Your task to perform on an android device: Go to Reddit.com Image 0: 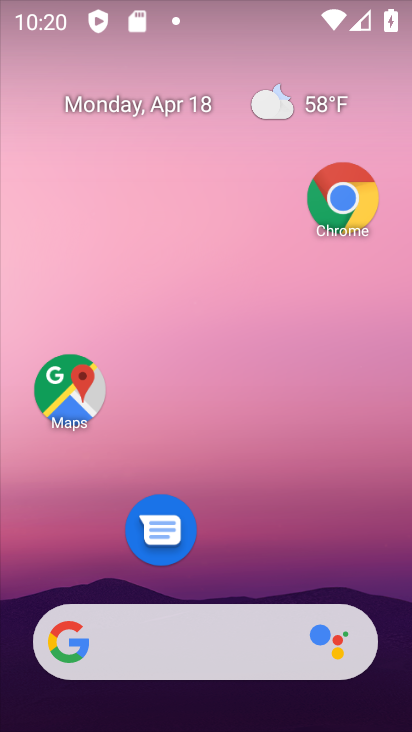
Step 0: drag from (260, 501) to (311, 207)
Your task to perform on an android device: Go to Reddit.com Image 1: 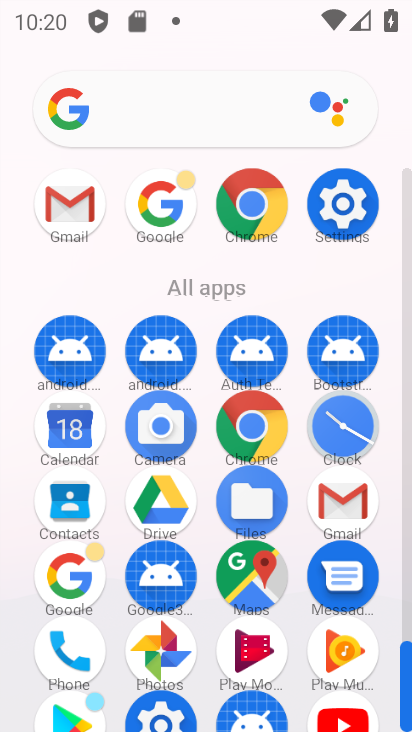
Step 1: click (245, 433)
Your task to perform on an android device: Go to Reddit.com Image 2: 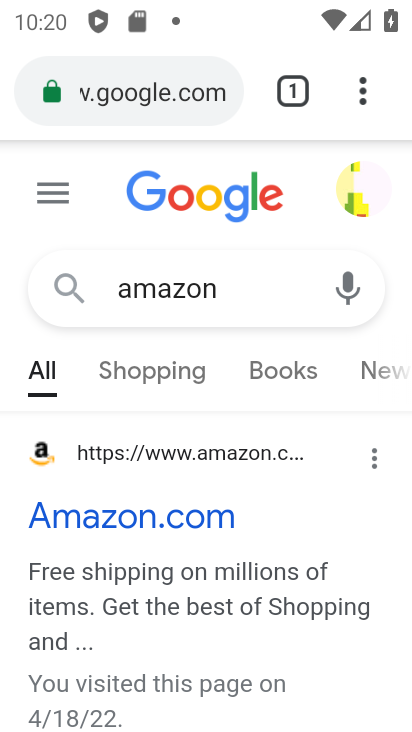
Step 2: click (143, 98)
Your task to perform on an android device: Go to Reddit.com Image 3: 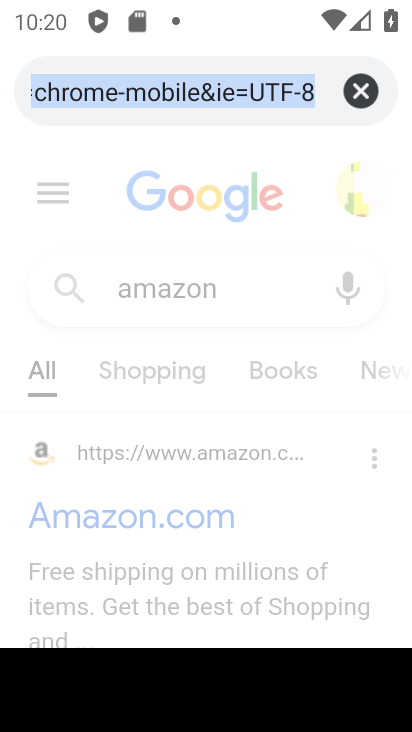
Step 3: type "reddit.com"
Your task to perform on an android device: Go to Reddit.com Image 4: 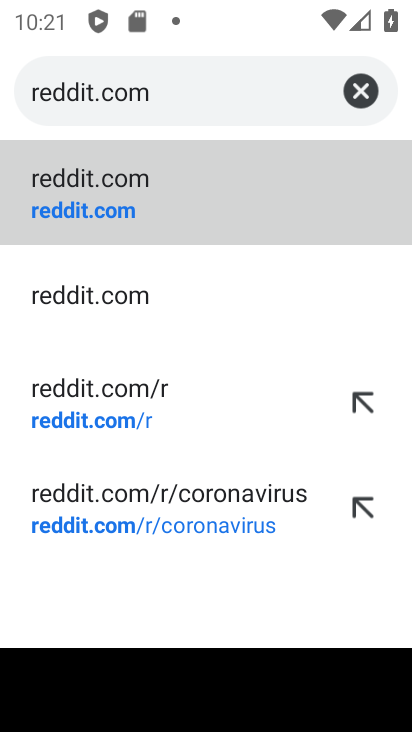
Step 4: click (143, 191)
Your task to perform on an android device: Go to Reddit.com Image 5: 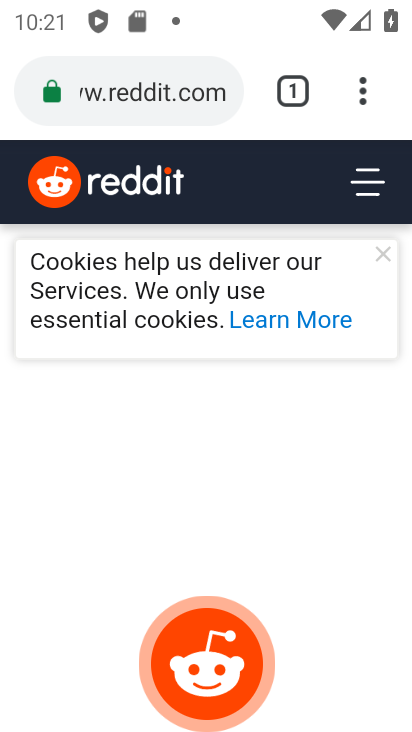
Step 5: task complete